Your task to perform on an android device: find snoozed emails in the gmail app Image 0: 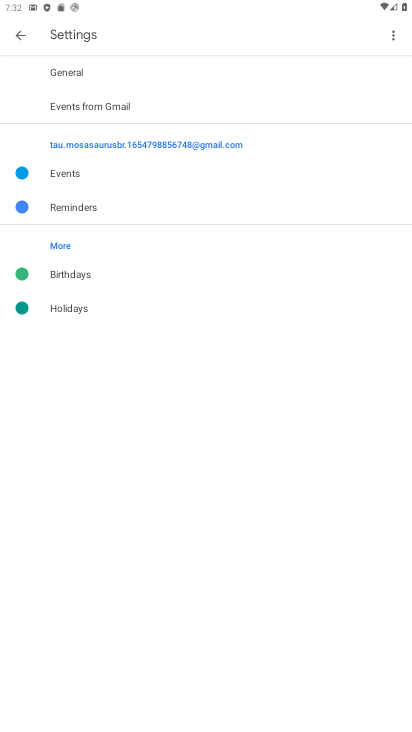
Step 0: press home button
Your task to perform on an android device: find snoozed emails in the gmail app Image 1: 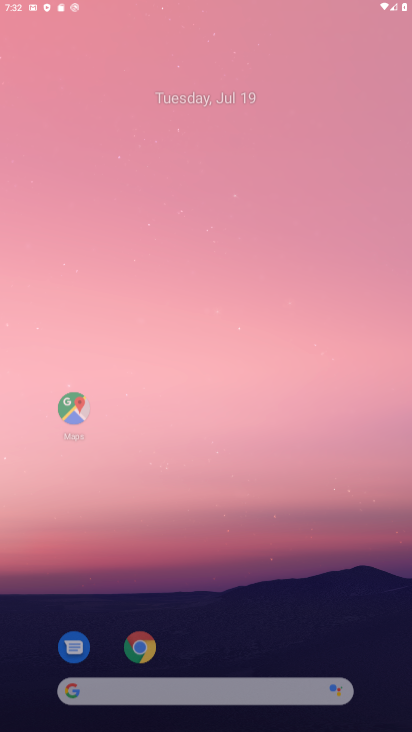
Step 1: drag from (240, 705) to (235, 367)
Your task to perform on an android device: find snoozed emails in the gmail app Image 2: 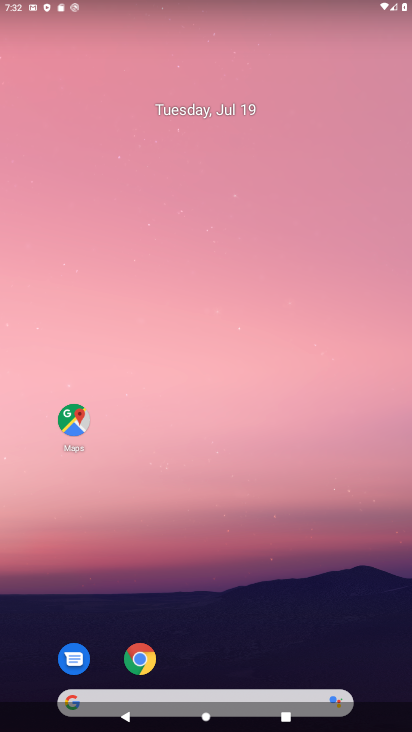
Step 2: drag from (229, 662) to (238, 221)
Your task to perform on an android device: find snoozed emails in the gmail app Image 3: 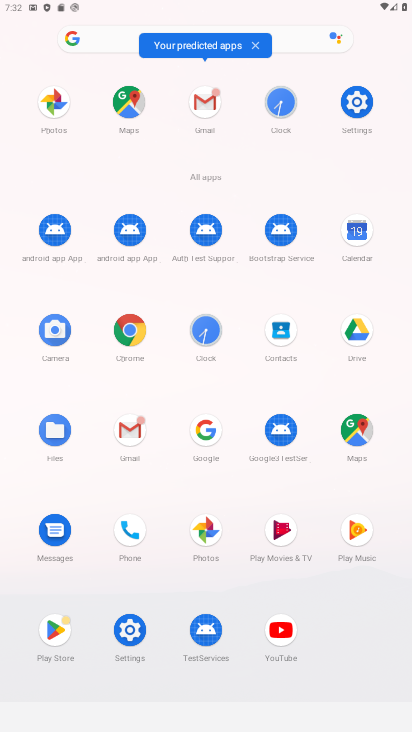
Step 3: click (125, 431)
Your task to perform on an android device: find snoozed emails in the gmail app Image 4: 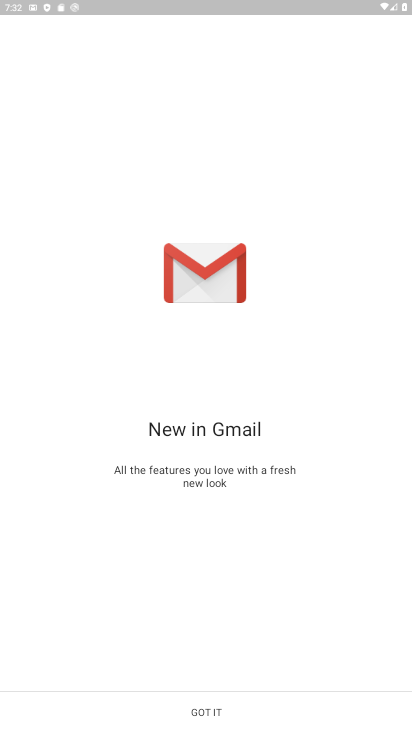
Step 4: click (210, 705)
Your task to perform on an android device: find snoozed emails in the gmail app Image 5: 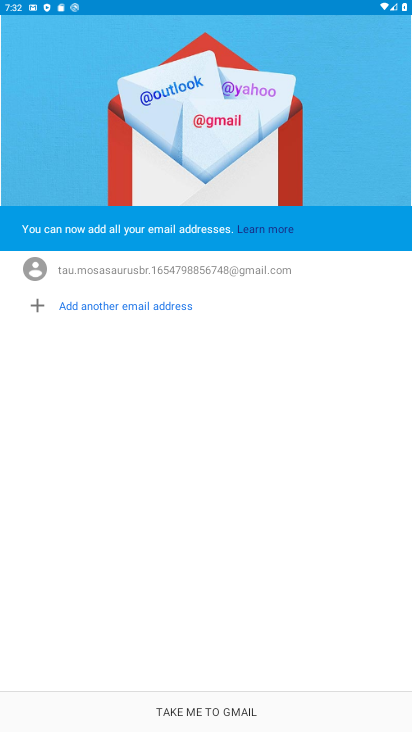
Step 5: click (210, 705)
Your task to perform on an android device: find snoozed emails in the gmail app Image 6: 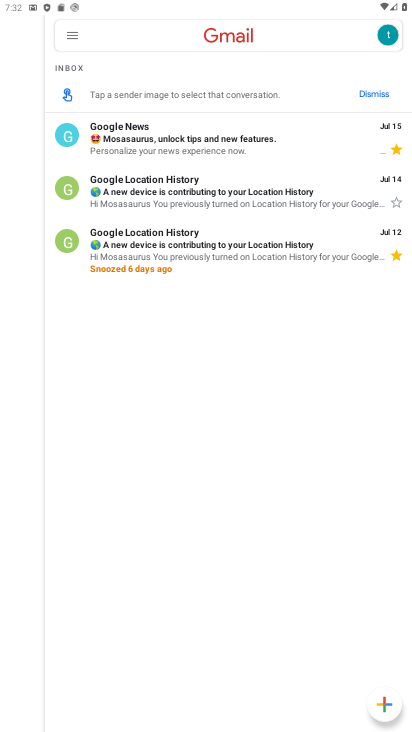
Step 6: click (81, 29)
Your task to perform on an android device: find snoozed emails in the gmail app Image 7: 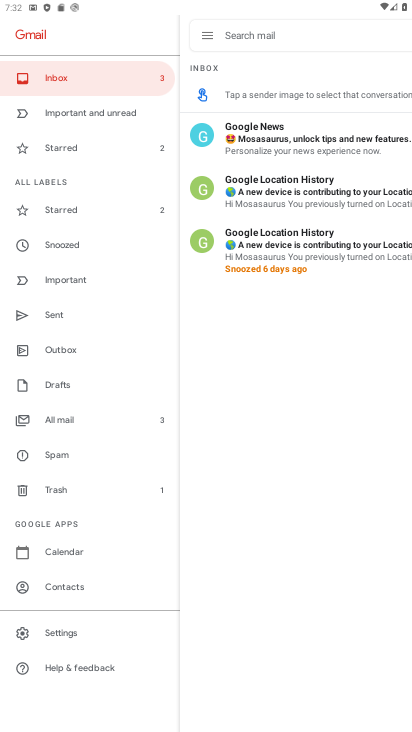
Step 7: click (88, 241)
Your task to perform on an android device: find snoozed emails in the gmail app Image 8: 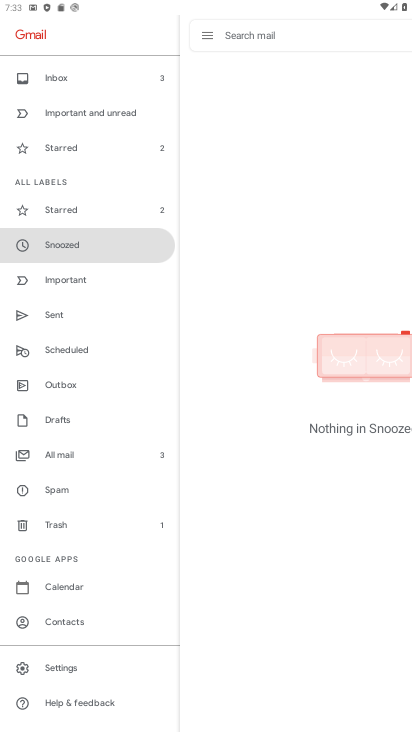
Step 8: task complete